Your task to perform on an android device: uninstall "Instagram" Image 0: 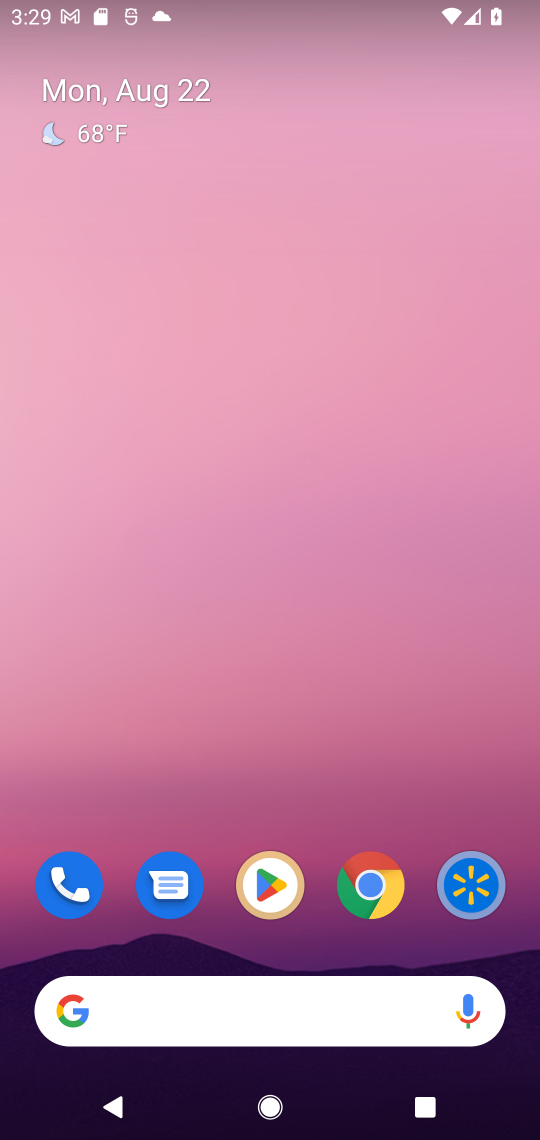
Step 0: press home button
Your task to perform on an android device: uninstall "Instagram" Image 1: 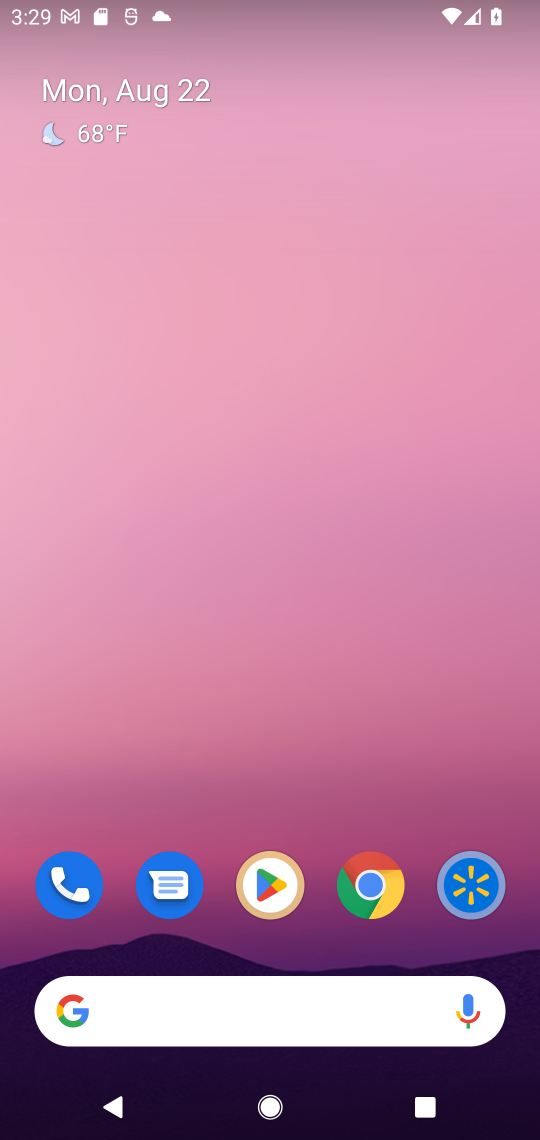
Step 1: click (264, 875)
Your task to perform on an android device: uninstall "Instagram" Image 2: 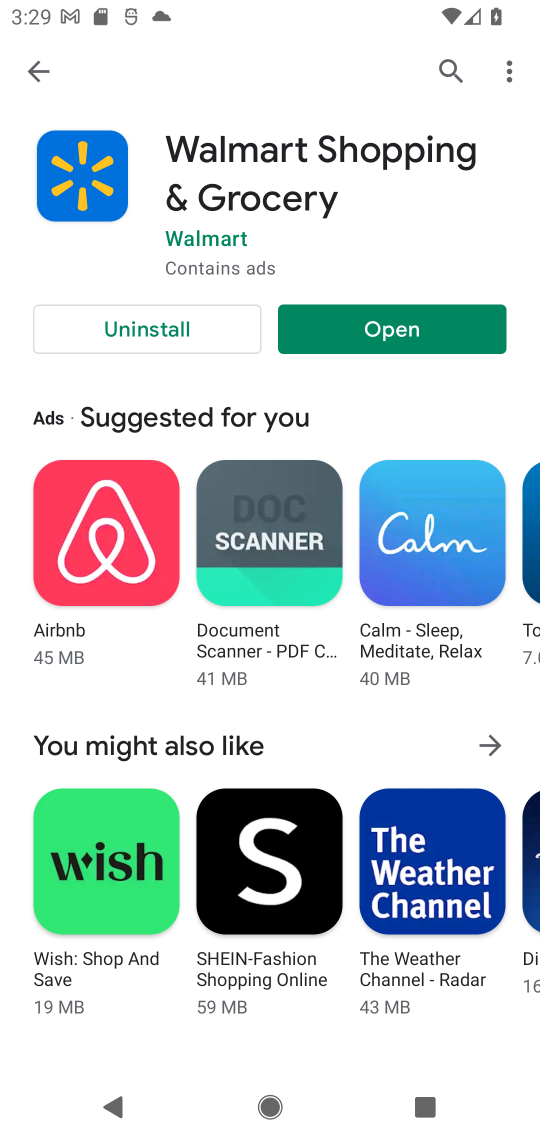
Step 2: click (449, 63)
Your task to perform on an android device: uninstall "Instagram" Image 3: 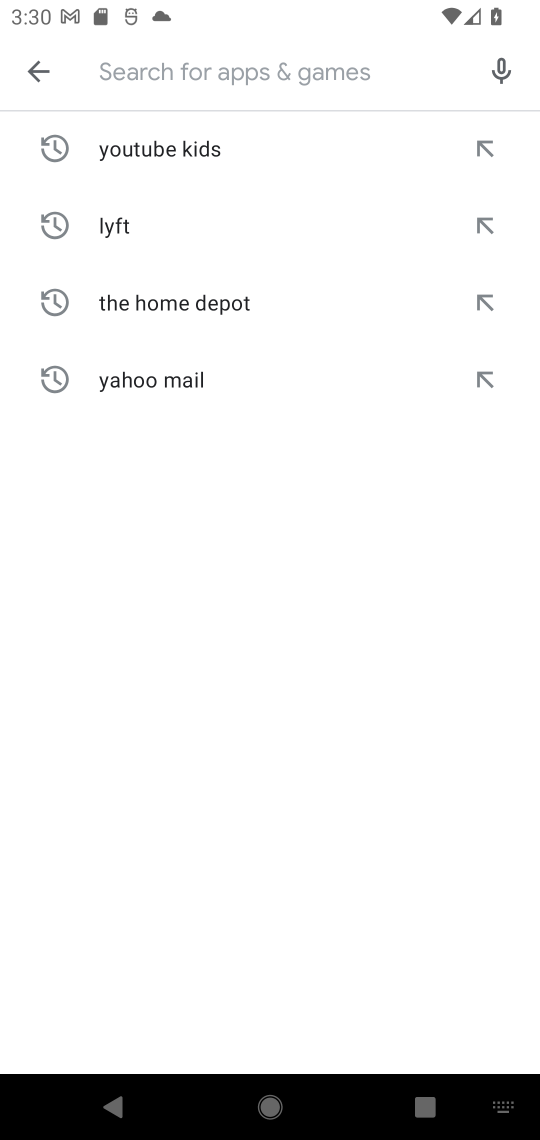
Step 3: type "Instagram"
Your task to perform on an android device: uninstall "Instagram" Image 4: 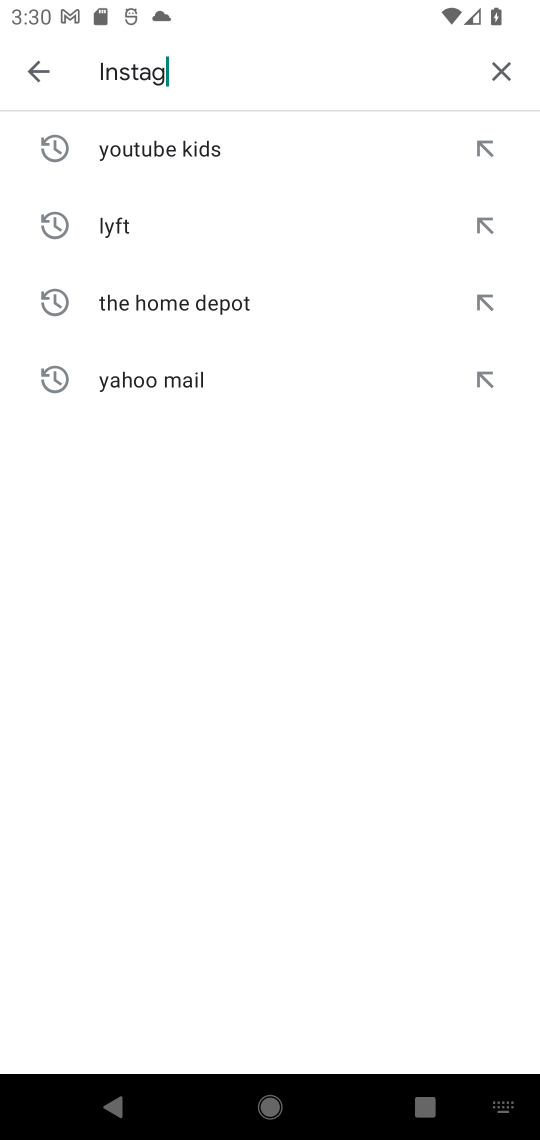
Step 4: type ""
Your task to perform on an android device: uninstall "Instagram" Image 5: 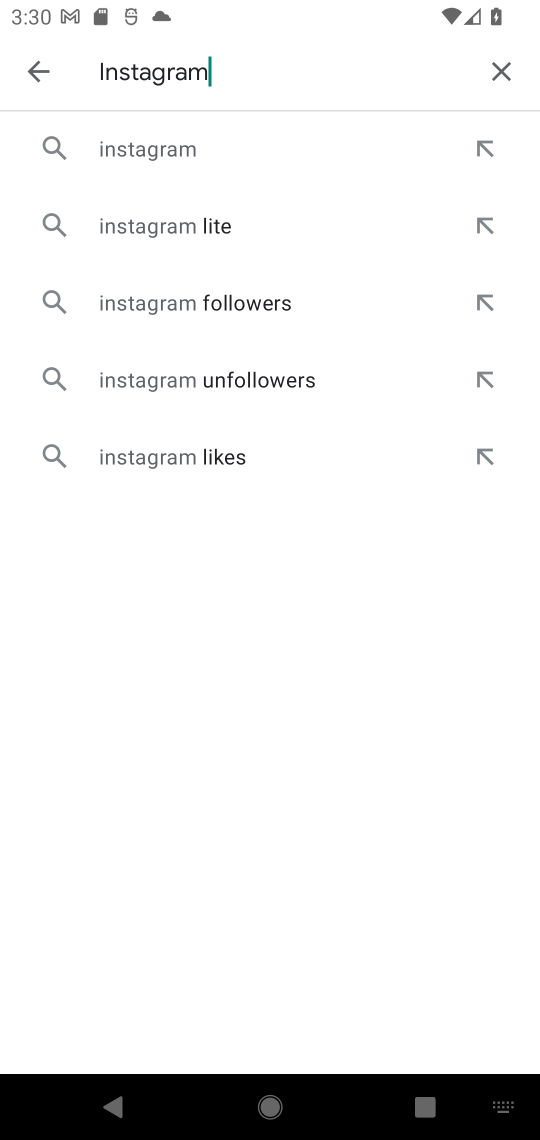
Step 5: click (196, 137)
Your task to perform on an android device: uninstall "Instagram" Image 6: 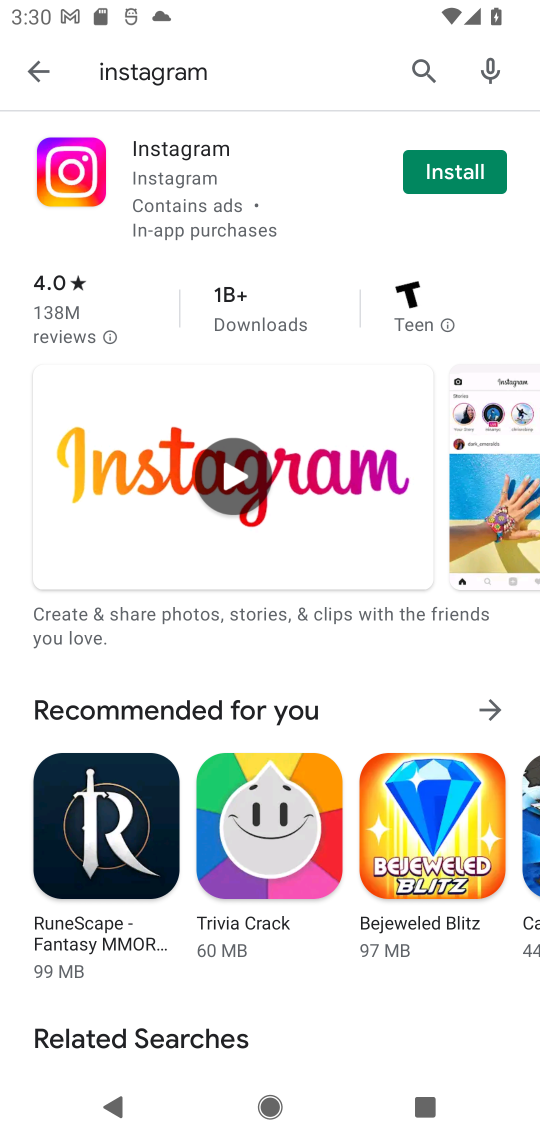
Step 6: task complete